Your task to perform on an android device: turn off javascript in the chrome app Image 0: 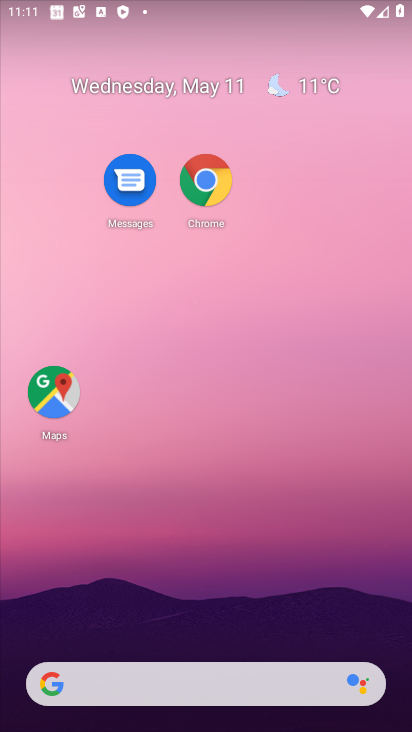
Step 0: drag from (314, 588) to (330, 137)
Your task to perform on an android device: turn off javascript in the chrome app Image 1: 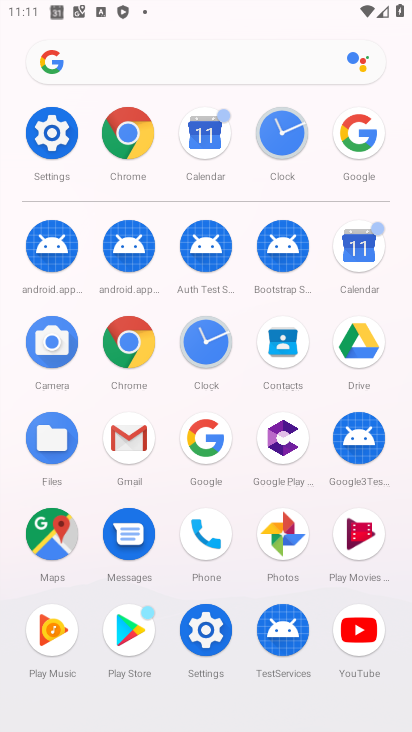
Step 1: click (269, 343)
Your task to perform on an android device: turn off javascript in the chrome app Image 2: 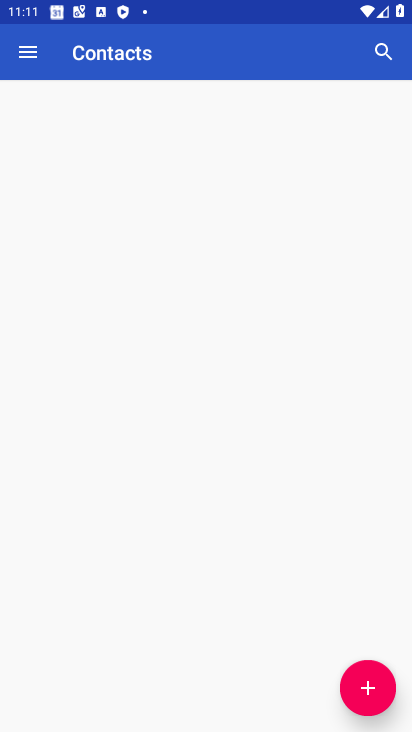
Step 2: click (127, 360)
Your task to perform on an android device: turn off javascript in the chrome app Image 3: 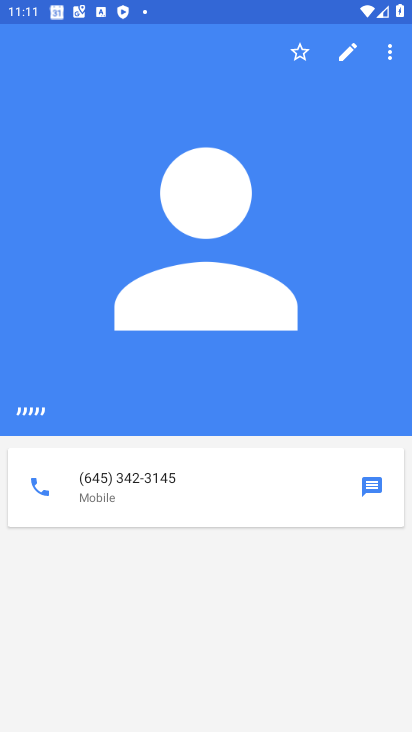
Step 3: press back button
Your task to perform on an android device: turn off javascript in the chrome app Image 4: 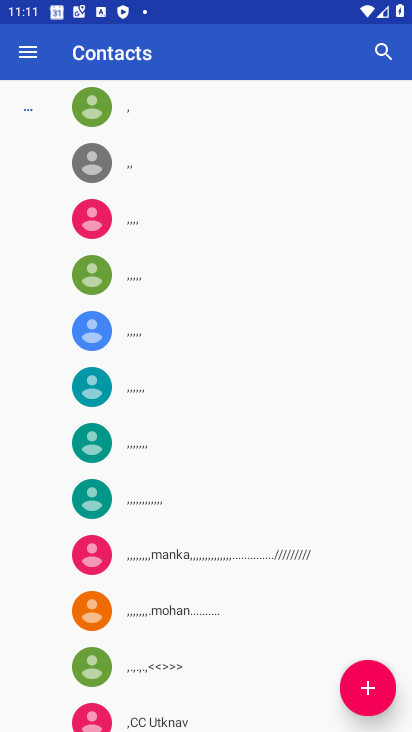
Step 4: press home button
Your task to perform on an android device: turn off javascript in the chrome app Image 5: 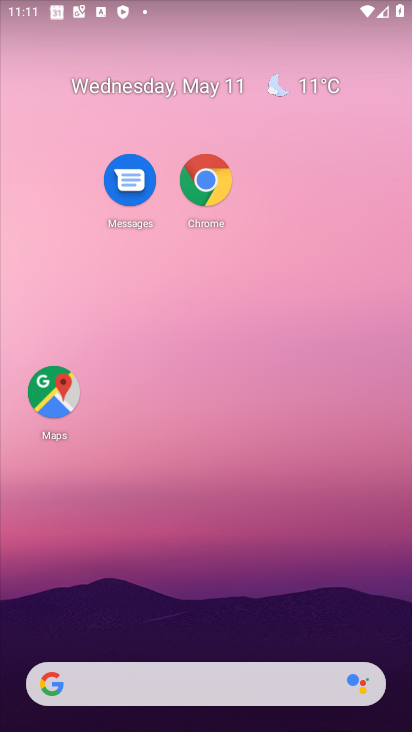
Step 5: drag from (188, 413) to (221, 149)
Your task to perform on an android device: turn off javascript in the chrome app Image 6: 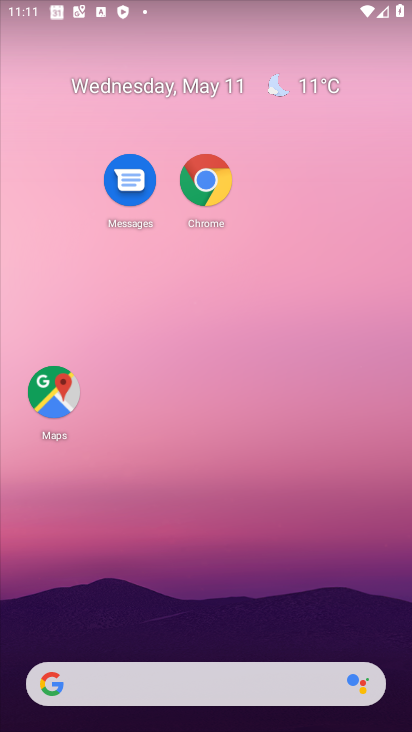
Step 6: drag from (234, 596) to (309, 118)
Your task to perform on an android device: turn off javascript in the chrome app Image 7: 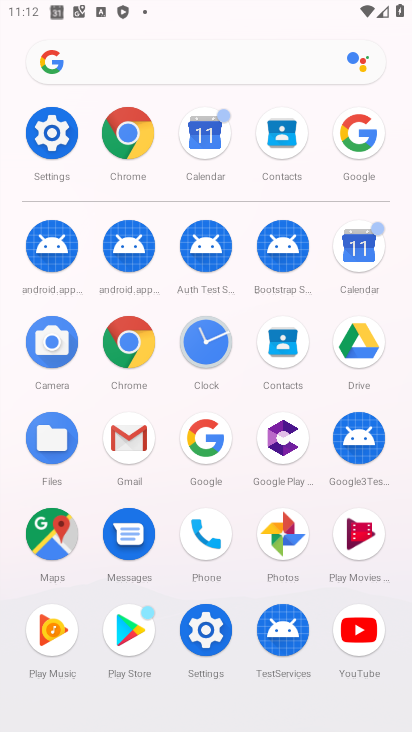
Step 7: click (137, 355)
Your task to perform on an android device: turn off javascript in the chrome app Image 8: 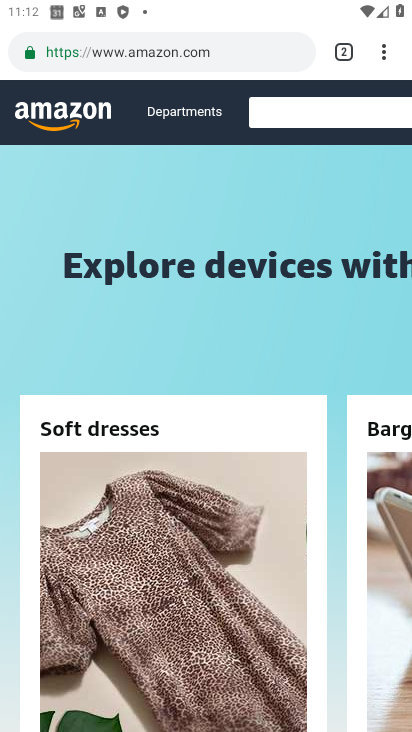
Step 8: click (376, 52)
Your task to perform on an android device: turn off javascript in the chrome app Image 9: 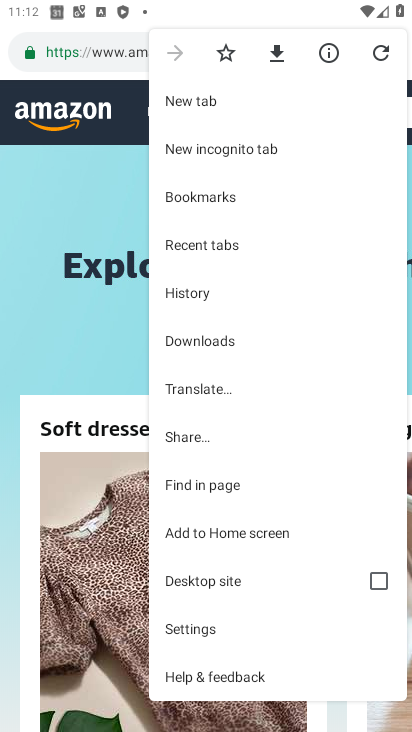
Step 9: click (227, 635)
Your task to perform on an android device: turn off javascript in the chrome app Image 10: 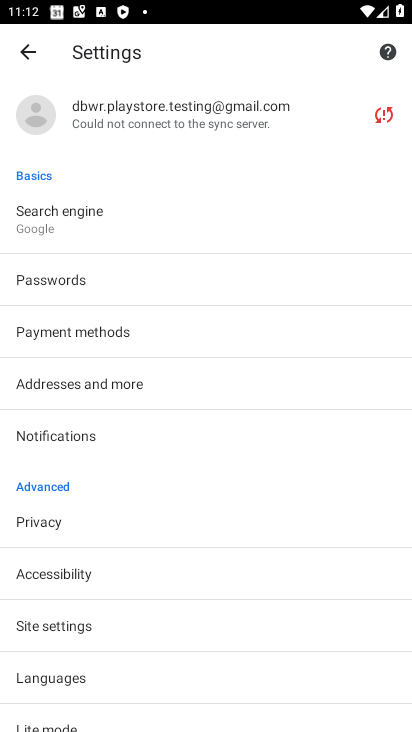
Step 10: click (94, 627)
Your task to perform on an android device: turn off javascript in the chrome app Image 11: 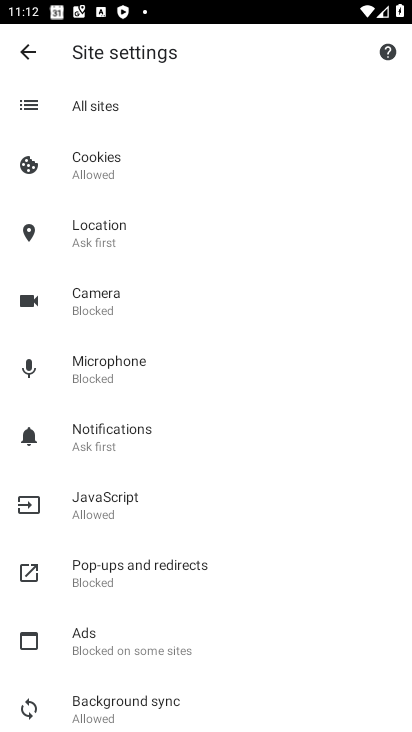
Step 11: click (143, 516)
Your task to perform on an android device: turn off javascript in the chrome app Image 12: 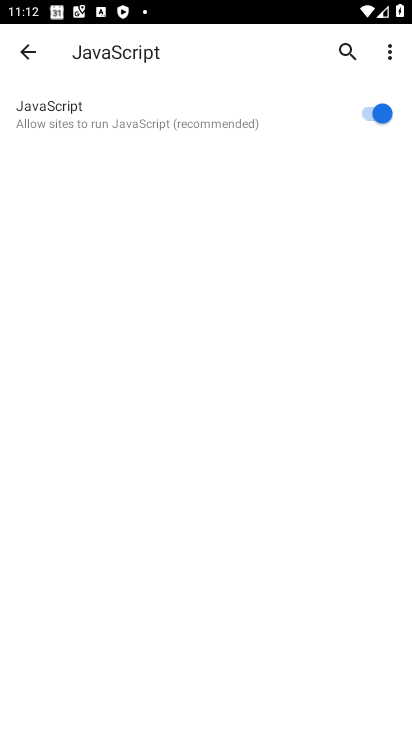
Step 12: click (375, 116)
Your task to perform on an android device: turn off javascript in the chrome app Image 13: 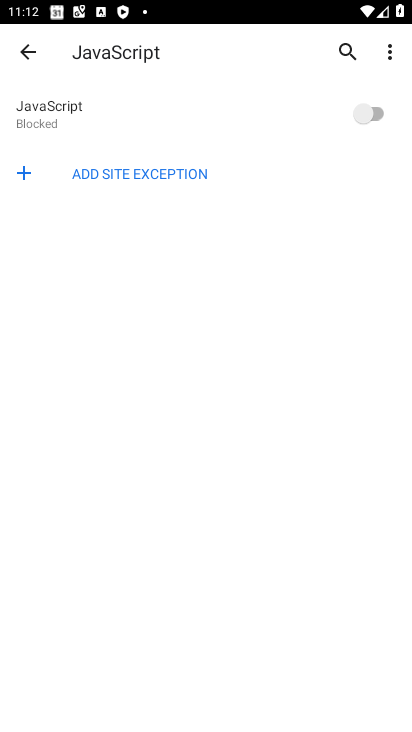
Step 13: task complete